Your task to perform on an android device: turn on the 24-hour format for clock Image 0: 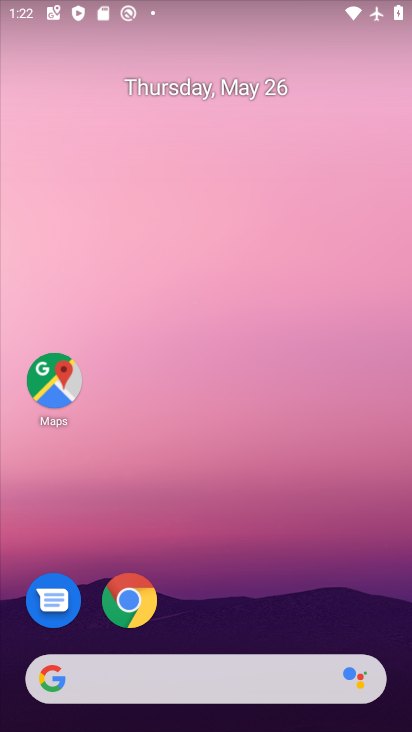
Step 0: drag from (263, 565) to (188, 1)
Your task to perform on an android device: turn on the 24-hour format for clock Image 1: 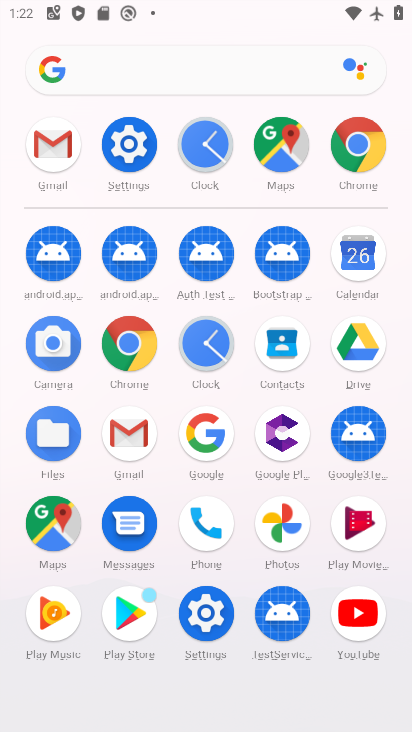
Step 1: click (198, 132)
Your task to perform on an android device: turn on the 24-hour format for clock Image 2: 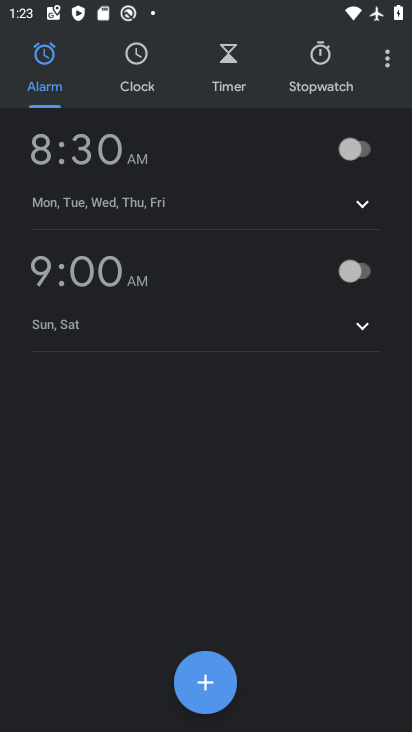
Step 2: click (386, 63)
Your task to perform on an android device: turn on the 24-hour format for clock Image 3: 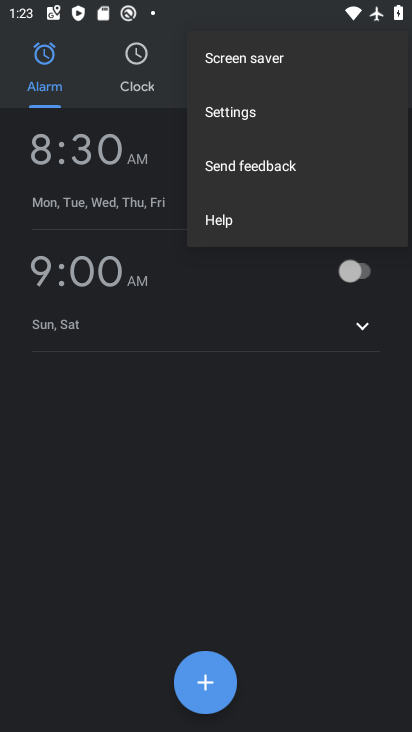
Step 3: click (258, 111)
Your task to perform on an android device: turn on the 24-hour format for clock Image 4: 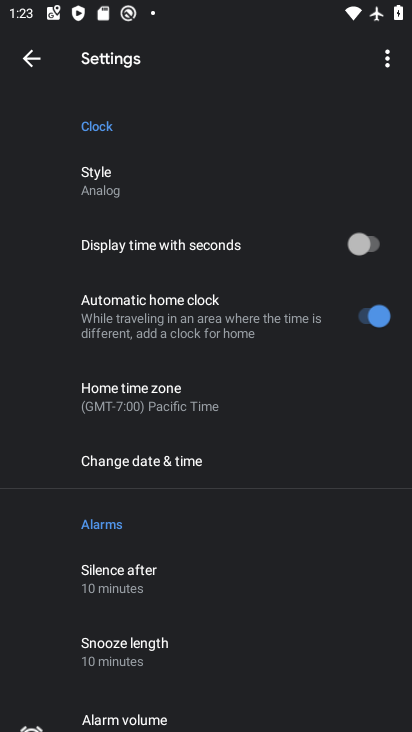
Step 4: click (167, 464)
Your task to perform on an android device: turn on the 24-hour format for clock Image 5: 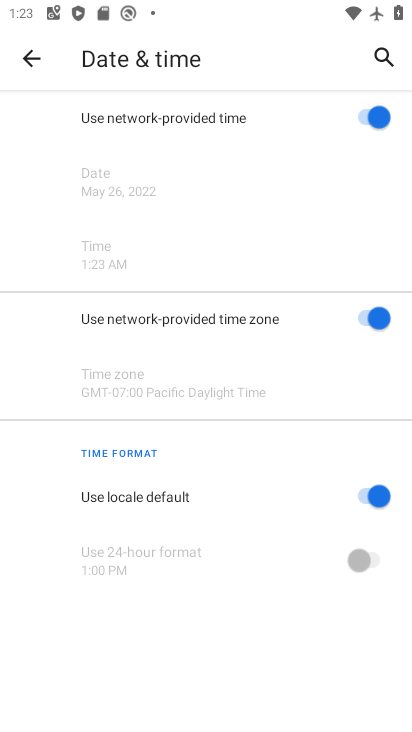
Step 5: click (356, 488)
Your task to perform on an android device: turn on the 24-hour format for clock Image 6: 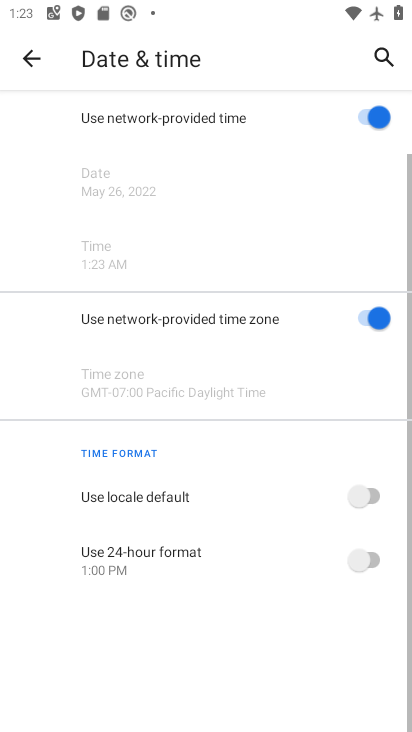
Step 6: click (361, 563)
Your task to perform on an android device: turn on the 24-hour format for clock Image 7: 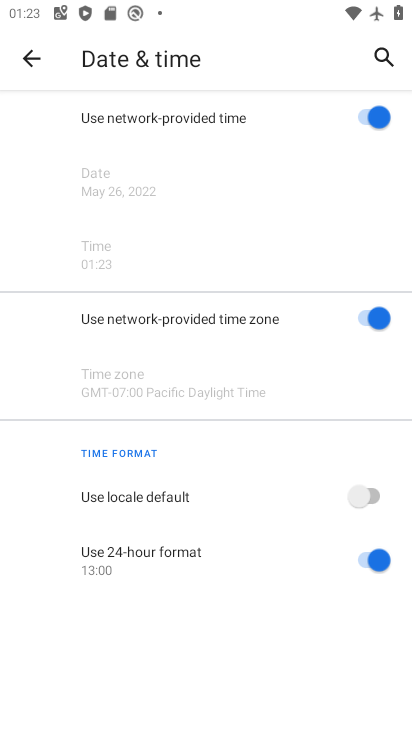
Step 7: task complete